Your task to perform on an android device: clear history in the chrome app Image 0: 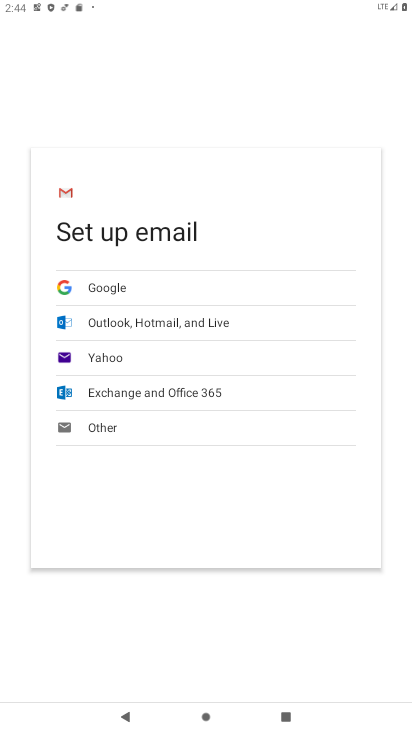
Step 0: press home button
Your task to perform on an android device: clear history in the chrome app Image 1: 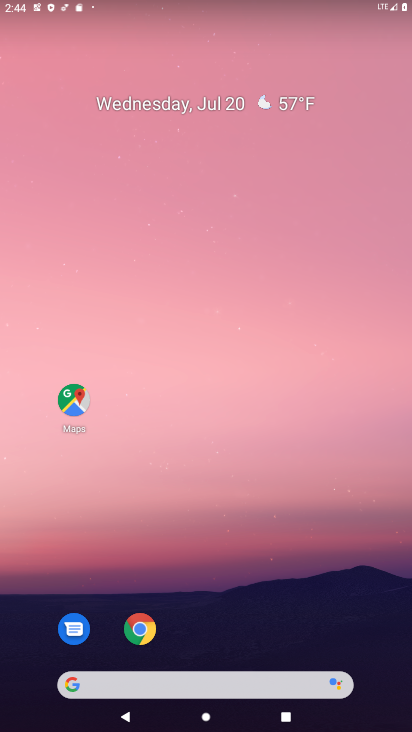
Step 1: click (147, 628)
Your task to perform on an android device: clear history in the chrome app Image 2: 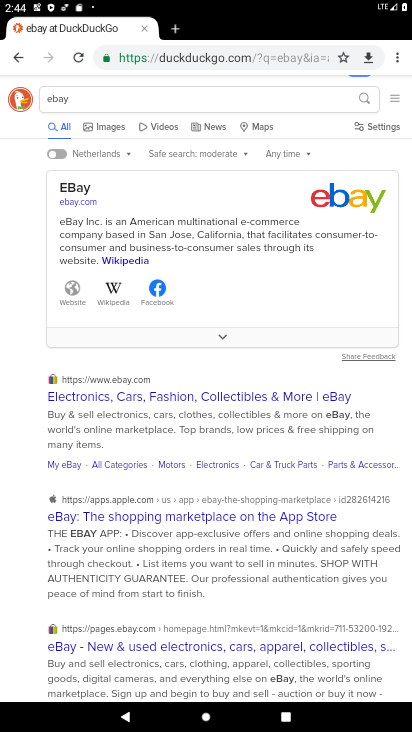
Step 2: drag from (399, 56) to (295, 223)
Your task to perform on an android device: clear history in the chrome app Image 3: 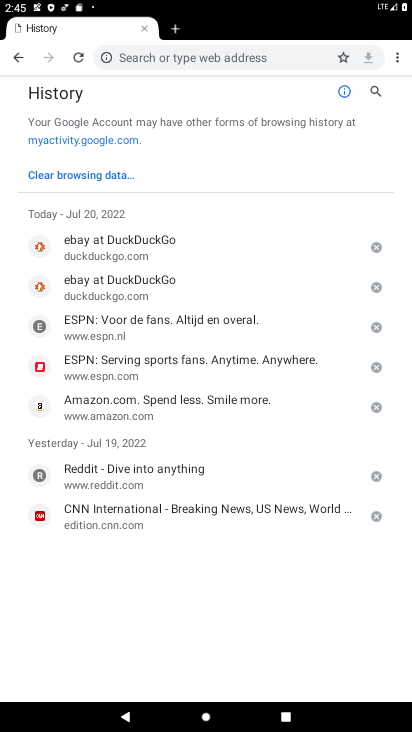
Step 3: click (84, 176)
Your task to perform on an android device: clear history in the chrome app Image 4: 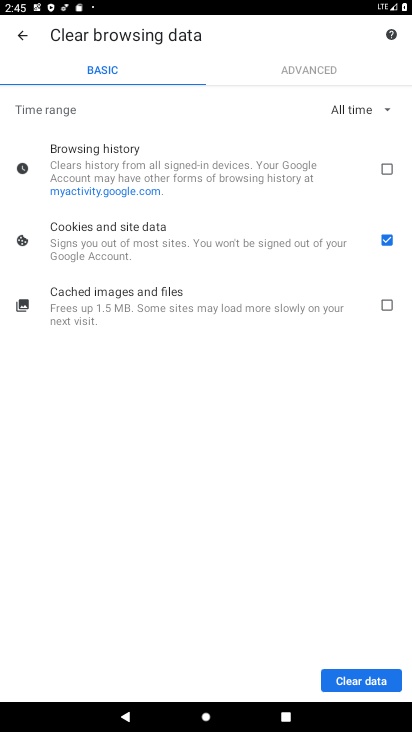
Step 4: click (390, 184)
Your task to perform on an android device: clear history in the chrome app Image 5: 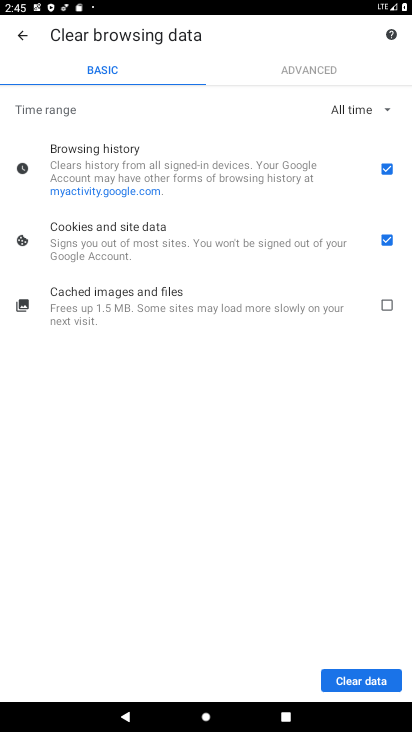
Step 5: click (343, 679)
Your task to perform on an android device: clear history in the chrome app Image 6: 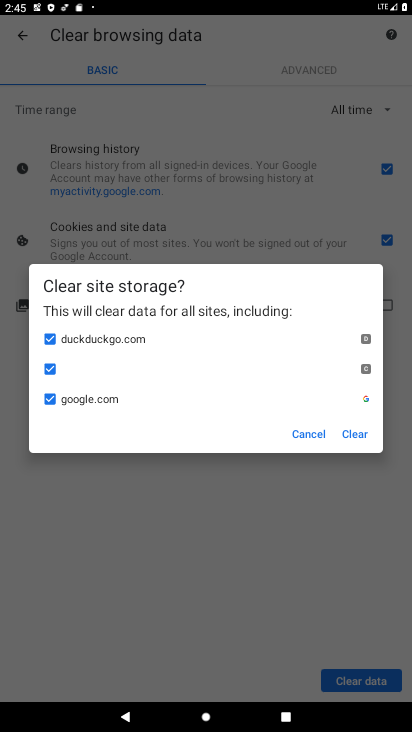
Step 6: click (362, 441)
Your task to perform on an android device: clear history in the chrome app Image 7: 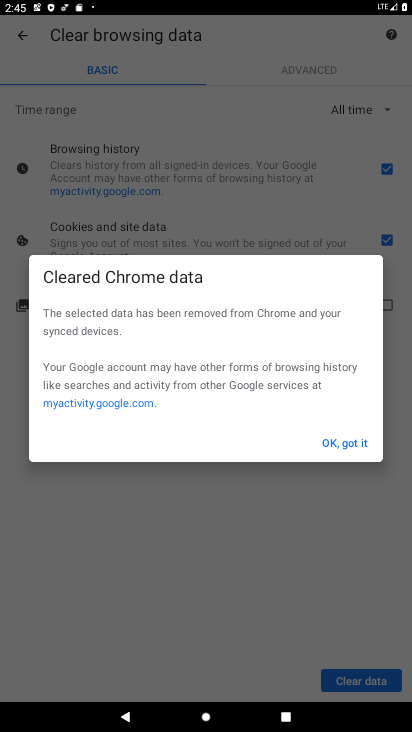
Step 7: click (319, 444)
Your task to perform on an android device: clear history in the chrome app Image 8: 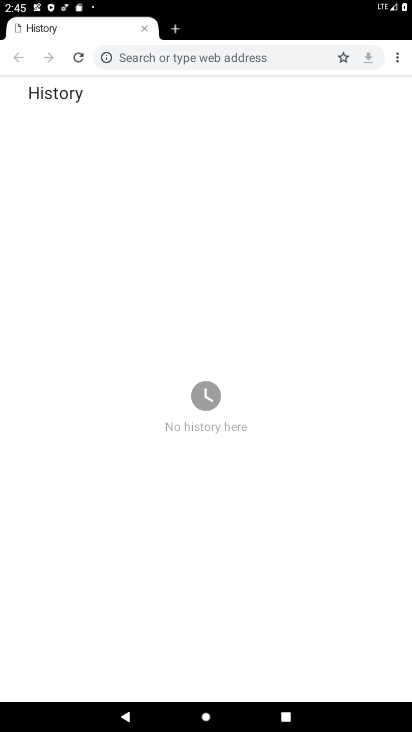
Step 8: task complete